Your task to perform on an android device: Search for sushi restaurants on Maps Image 0: 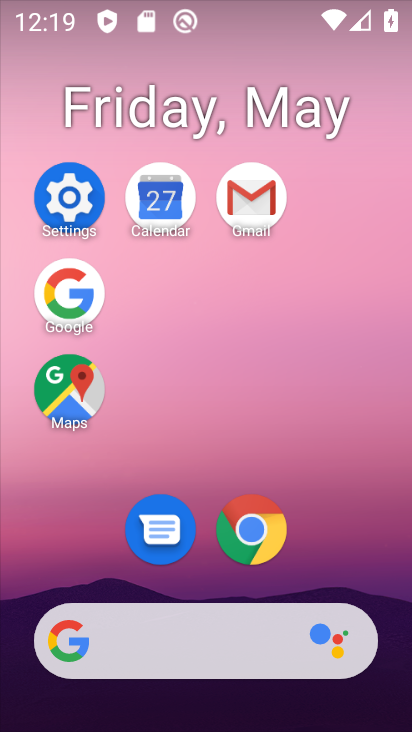
Step 0: click (83, 375)
Your task to perform on an android device: Search for sushi restaurants on Maps Image 1: 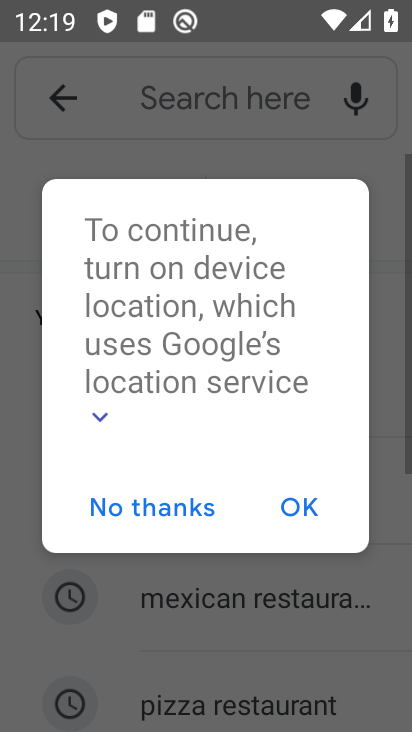
Step 1: click (192, 100)
Your task to perform on an android device: Search for sushi restaurants on Maps Image 2: 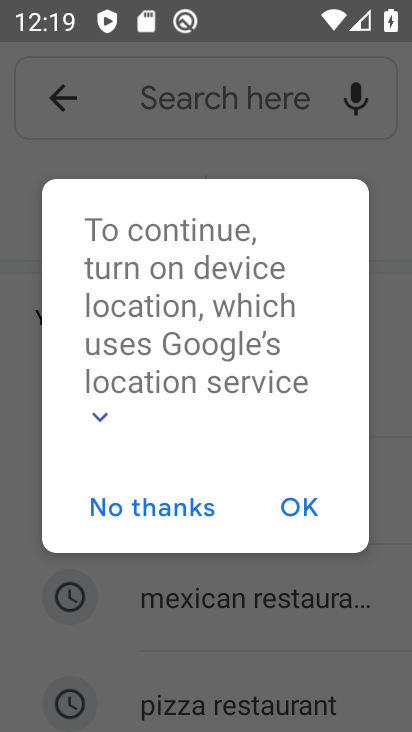
Step 2: click (316, 505)
Your task to perform on an android device: Search for sushi restaurants on Maps Image 3: 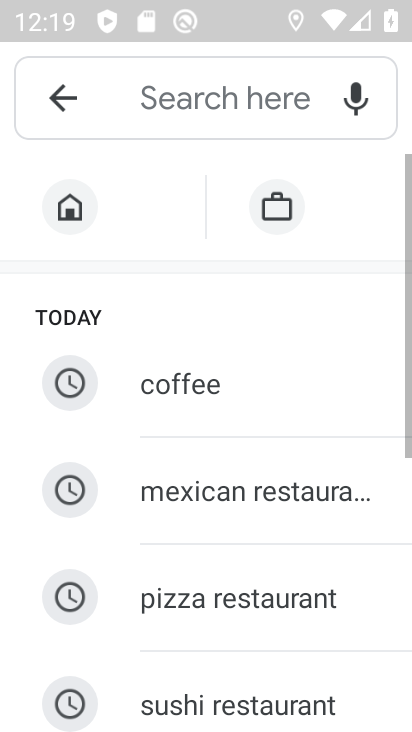
Step 3: click (203, 108)
Your task to perform on an android device: Search for sushi restaurants on Maps Image 4: 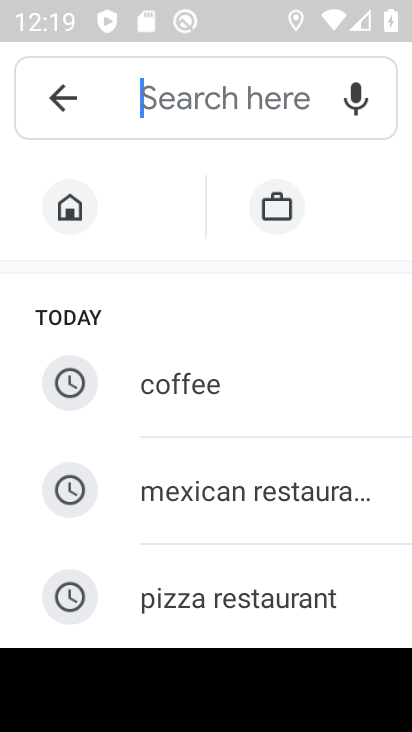
Step 4: drag from (286, 517) to (305, 219)
Your task to perform on an android device: Search for sushi restaurants on Maps Image 5: 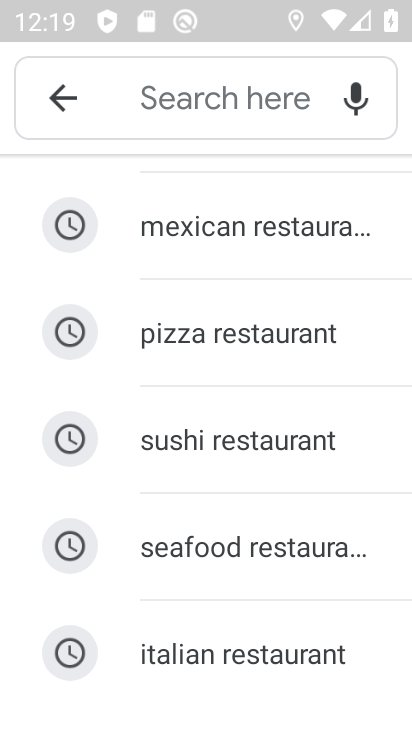
Step 5: click (290, 435)
Your task to perform on an android device: Search for sushi restaurants on Maps Image 6: 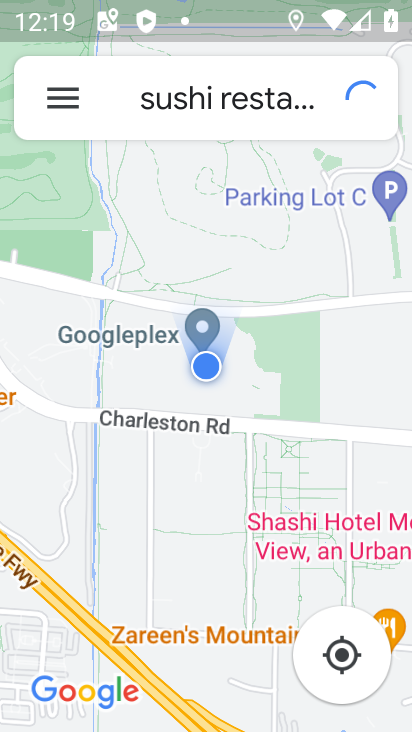
Step 6: task complete